Your task to perform on an android device: turn off location history Image 0: 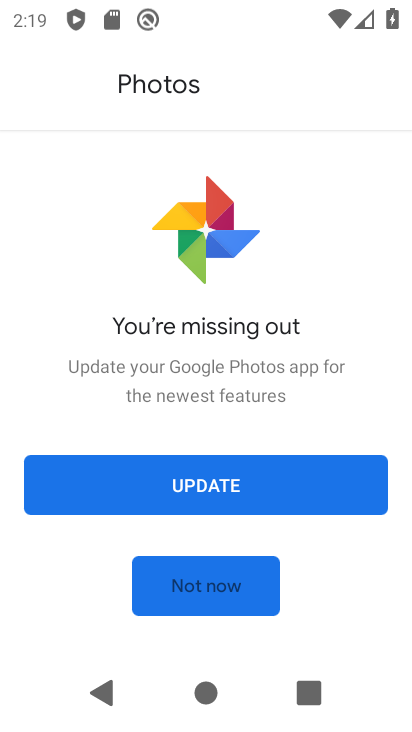
Step 0: press home button
Your task to perform on an android device: turn off location history Image 1: 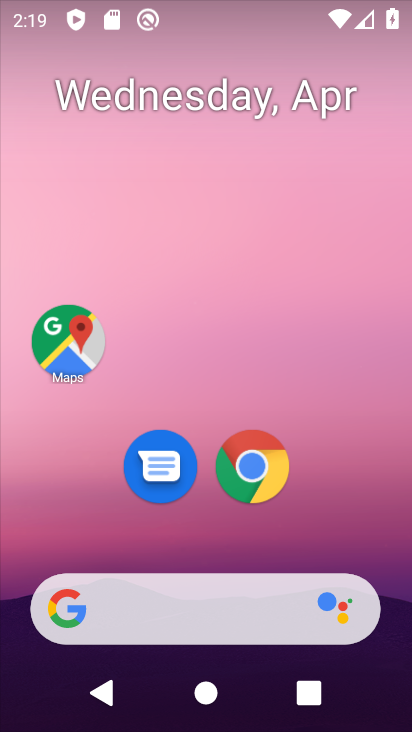
Step 1: drag from (348, 465) to (342, 132)
Your task to perform on an android device: turn off location history Image 2: 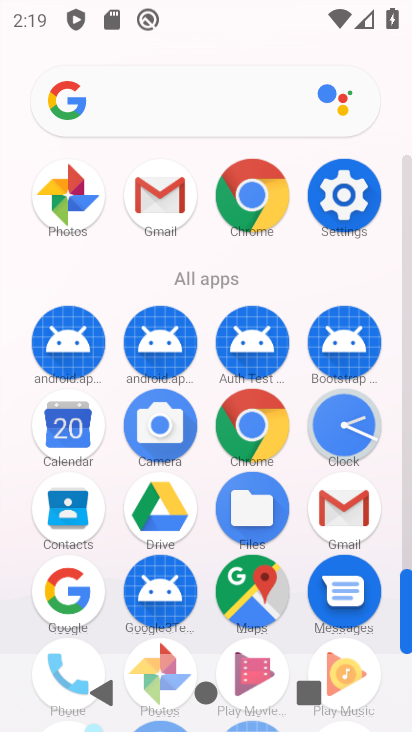
Step 2: click (346, 175)
Your task to perform on an android device: turn off location history Image 3: 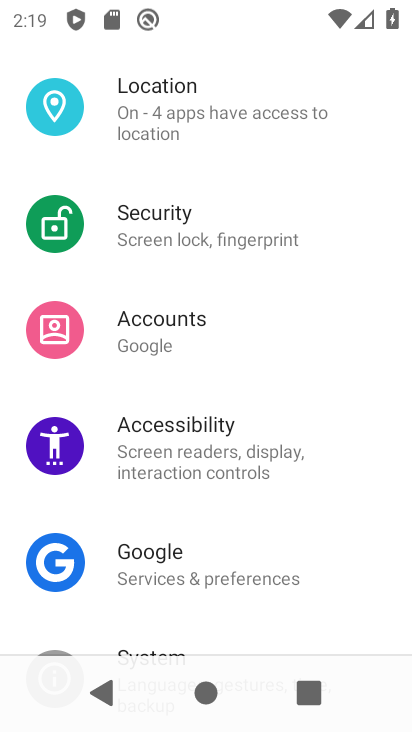
Step 3: click (224, 113)
Your task to perform on an android device: turn off location history Image 4: 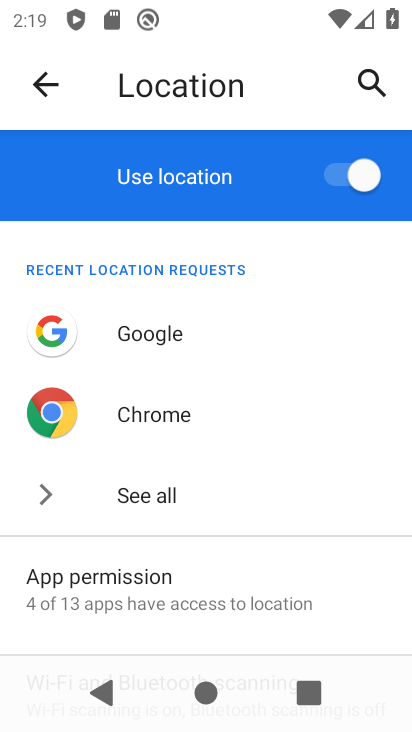
Step 4: drag from (245, 529) to (228, 198)
Your task to perform on an android device: turn off location history Image 5: 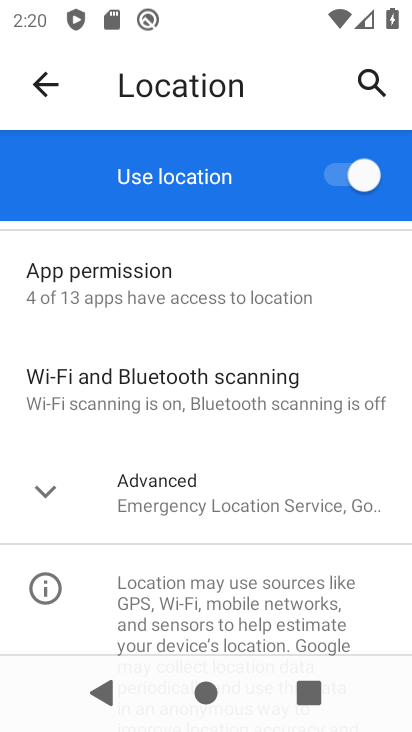
Step 5: click (223, 508)
Your task to perform on an android device: turn off location history Image 6: 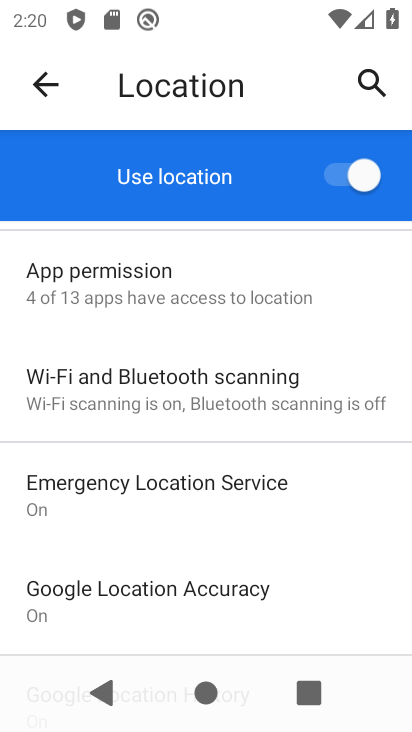
Step 6: drag from (232, 564) to (255, 309)
Your task to perform on an android device: turn off location history Image 7: 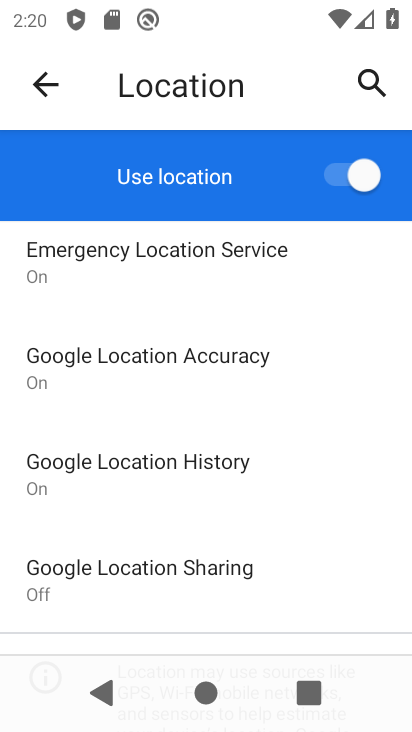
Step 7: click (176, 473)
Your task to perform on an android device: turn off location history Image 8: 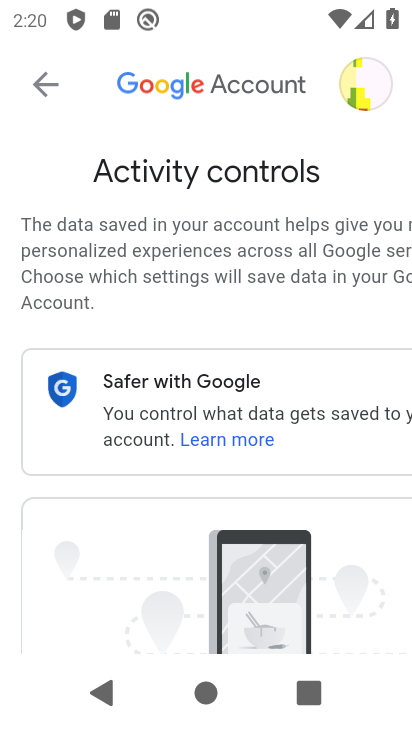
Step 8: drag from (284, 582) to (270, 72)
Your task to perform on an android device: turn off location history Image 9: 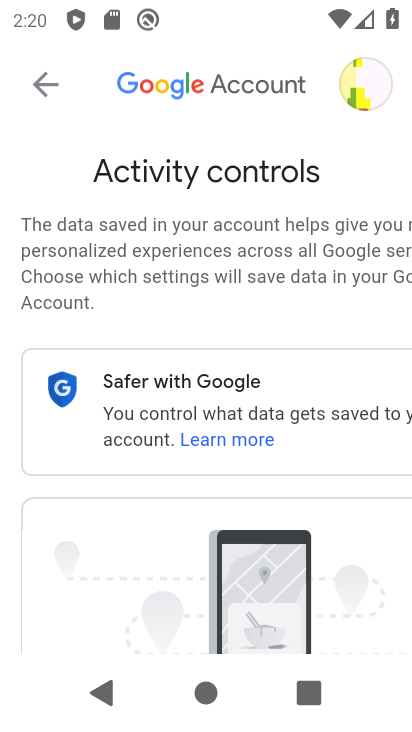
Step 9: drag from (203, 500) to (229, 103)
Your task to perform on an android device: turn off location history Image 10: 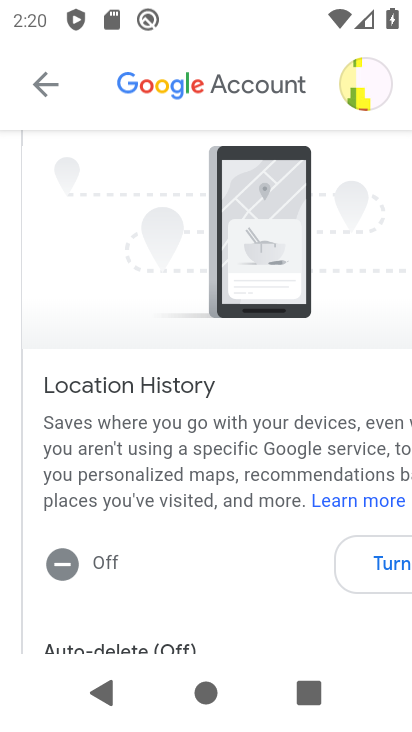
Step 10: click (361, 574)
Your task to perform on an android device: turn off location history Image 11: 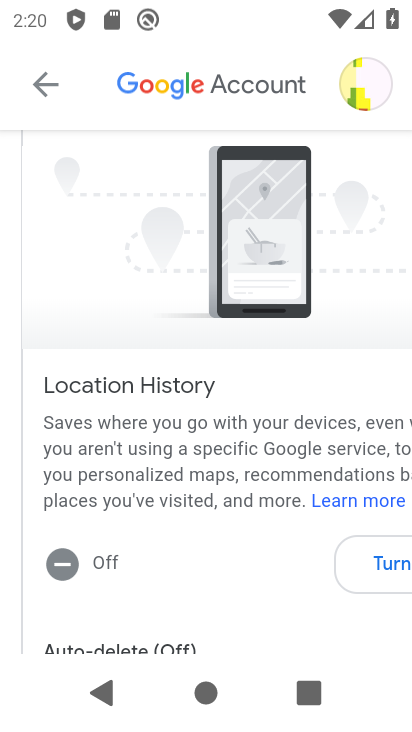
Step 11: click (361, 574)
Your task to perform on an android device: turn off location history Image 12: 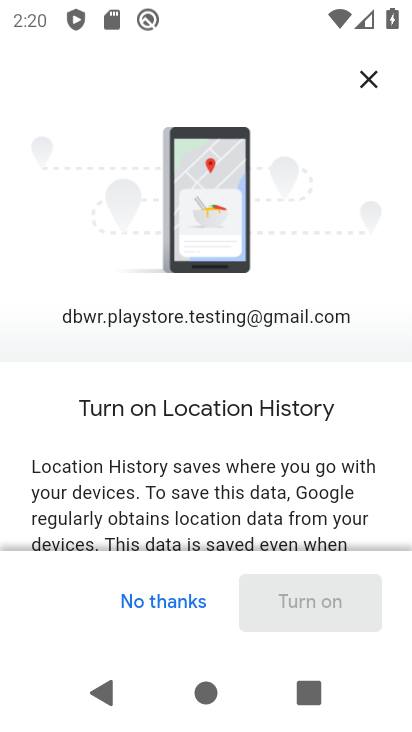
Step 12: click (152, 599)
Your task to perform on an android device: turn off location history Image 13: 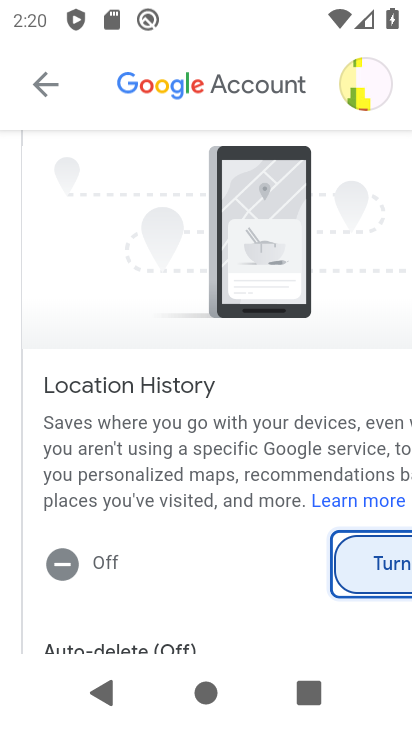
Step 13: task complete